Your task to perform on an android device: What's the weather? Image 0: 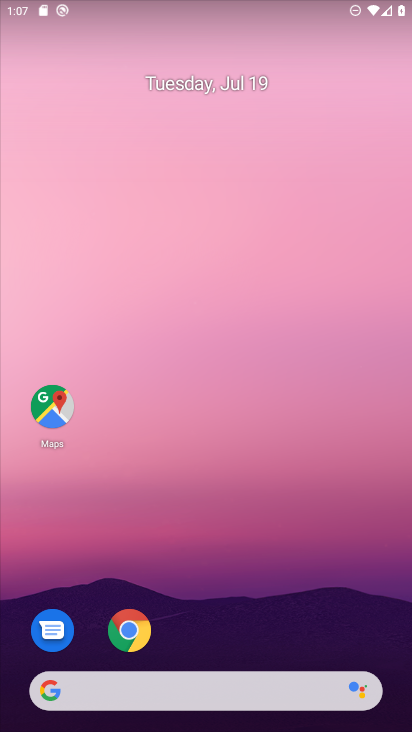
Step 0: press home button
Your task to perform on an android device: What's the weather? Image 1: 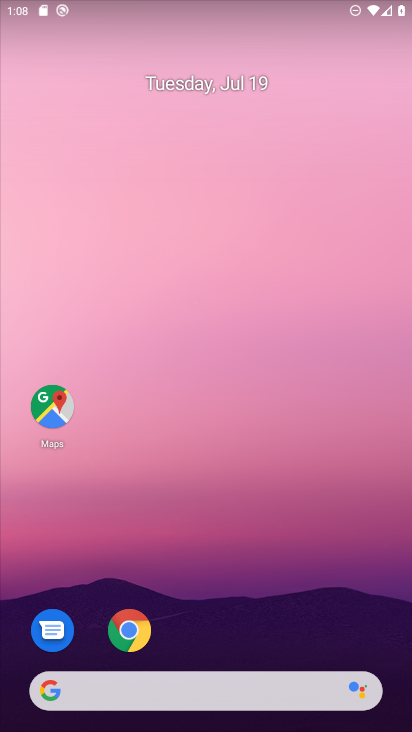
Step 1: click (138, 685)
Your task to perform on an android device: What's the weather? Image 2: 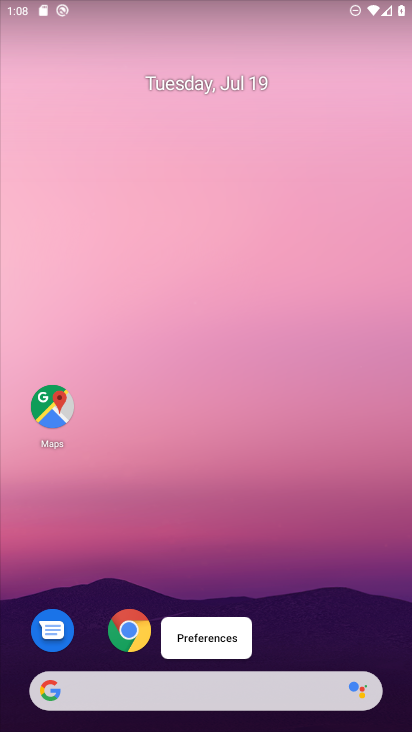
Step 2: click (148, 695)
Your task to perform on an android device: What's the weather? Image 3: 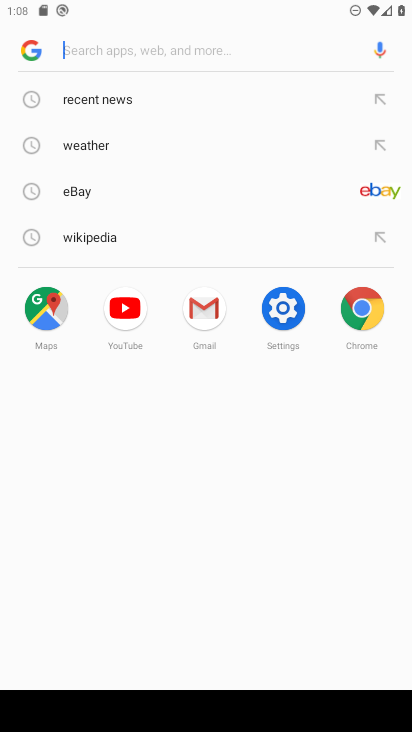
Step 3: click (75, 144)
Your task to perform on an android device: What's the weather? Image 4: 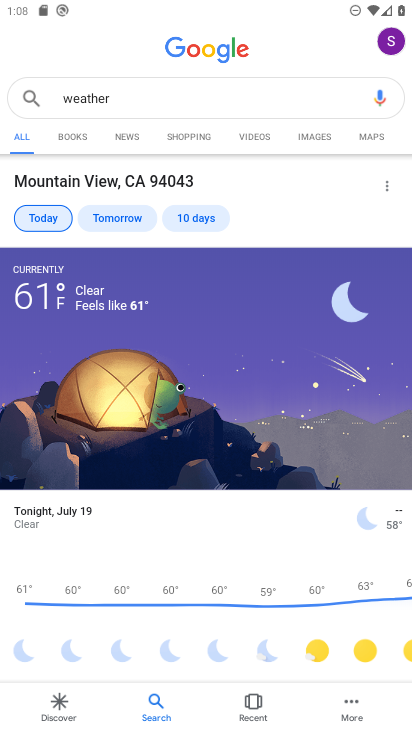
Step 4: task complete